Your task to perform on an android device: Go to CNN.com Image 0: 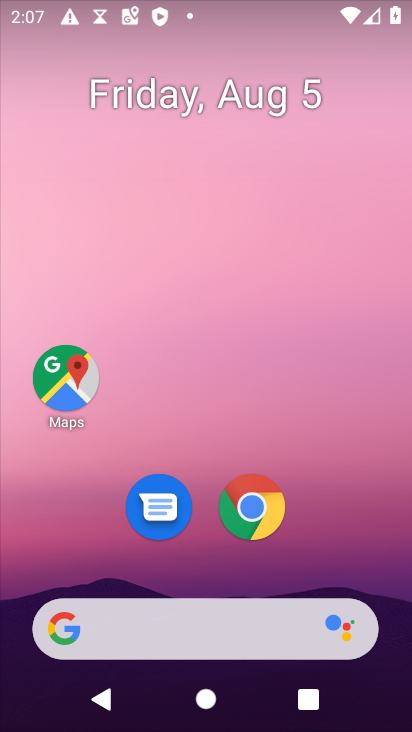
Step 0: click (254, 504)
Your task to perform on an android device: Go to CNN.com Image 1: 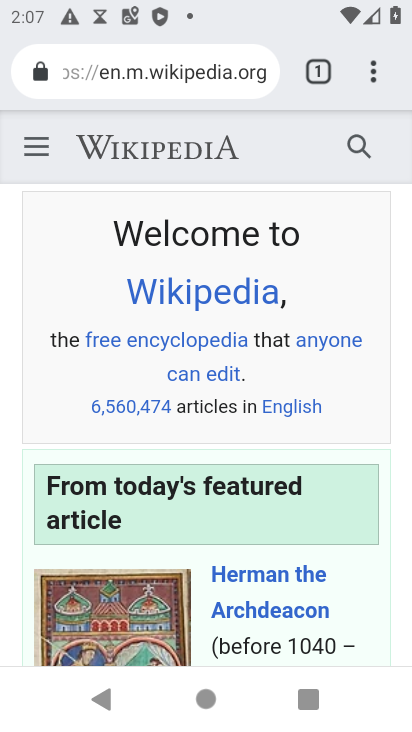
Step 1: click (181, 60)
Your task to perform on an android device: Go to CNN.com Image 2: 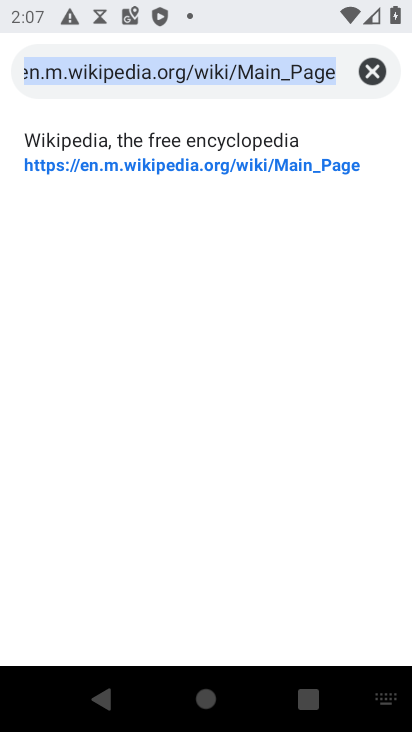
Step 2: type "CNN.com"
Your task to perform on an android device: Go to CNN.com Image 3: 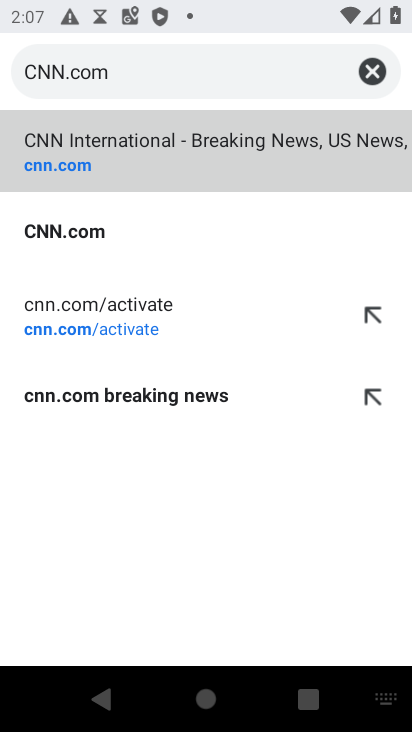
Step 3: click (150, 149)
Your task to perform on an android device: Go to CNN.com Image 4: 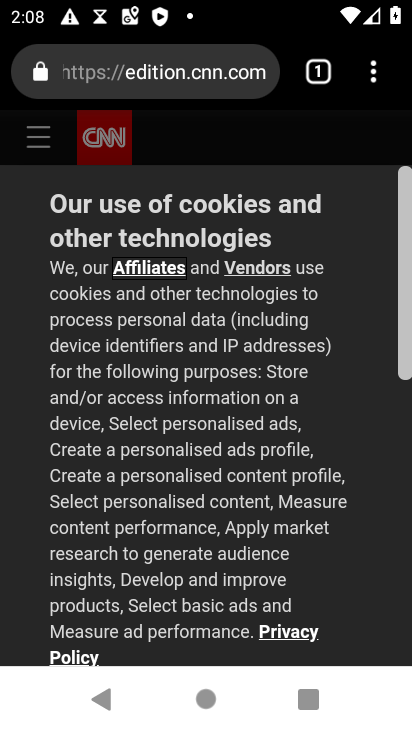
Step 4: task complete